Your task to perform on an android device: delete browsing data in the chrome app Image 0: 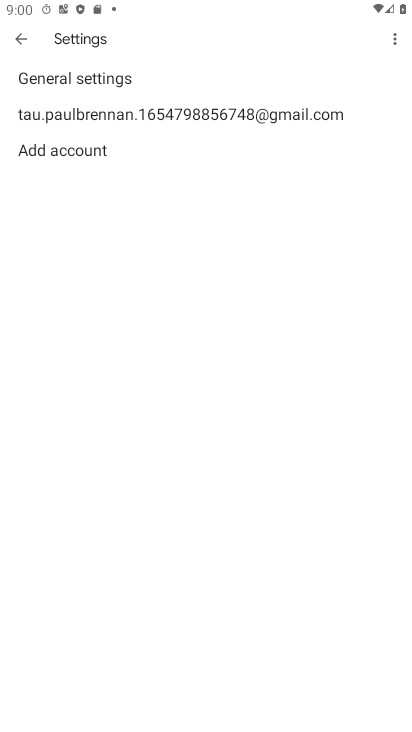
Step 0: click (18, 35)
Your task to perform on an android device: delete browsing data in the chrome app Image 1: 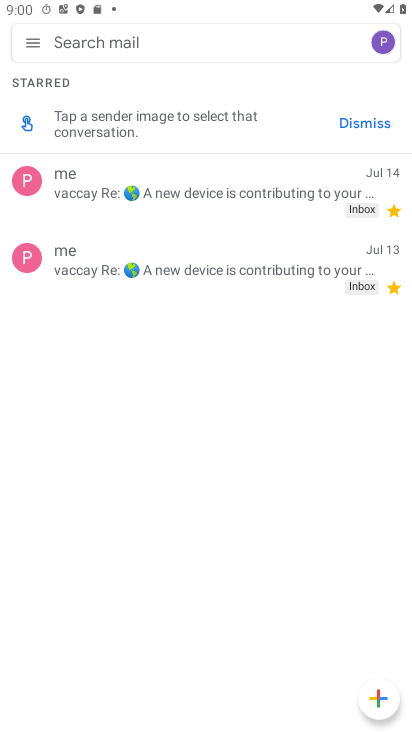
Step 1: click (29, 40)
Your task to perform on an android device: delete browsing data in the chrome app Image 2: 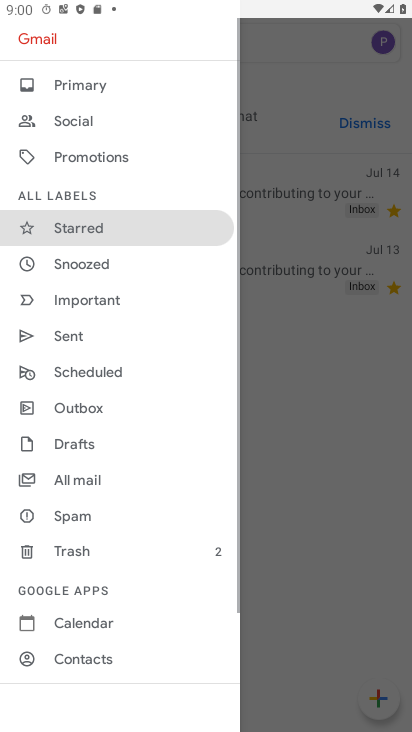
Step 2: press back button
Your task to perform on an android device: delete browsing data in the chrome app Image 3: 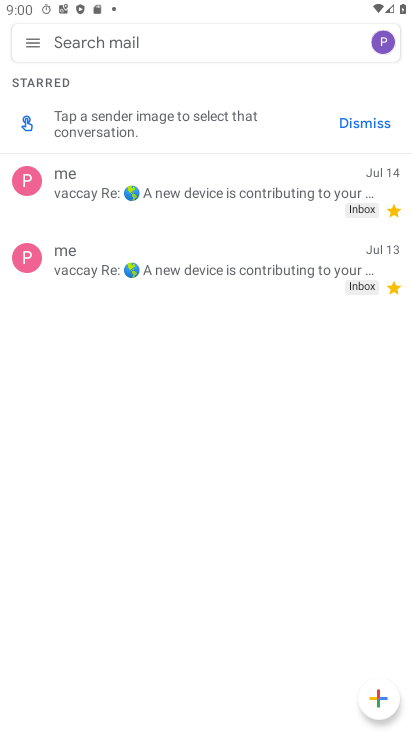
Step 3: press back button
Your task to perform on an android device: delete browsing data in the chrome app Image 4: 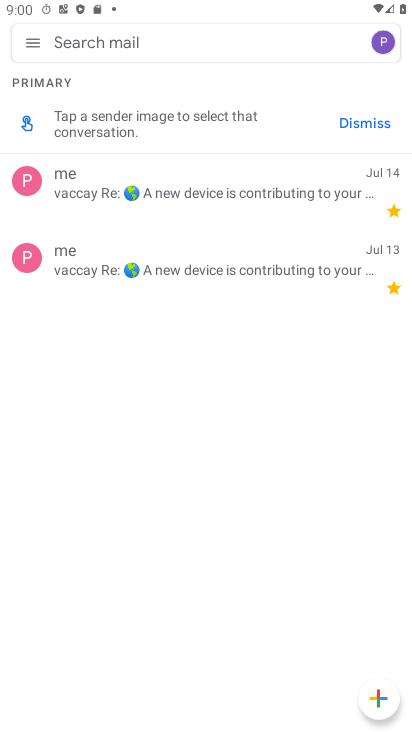
Step 4: press home button
Your task to perform on an android device: delete browsing data in the chrome app Image 5: 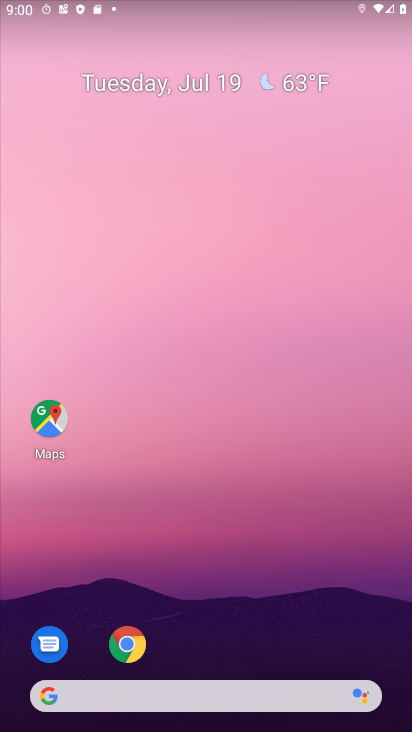
Step 5: drag from (260, 659) to (181, 362)
Your task to perform on an android device: delete browsing data in the chrome app Image 6: 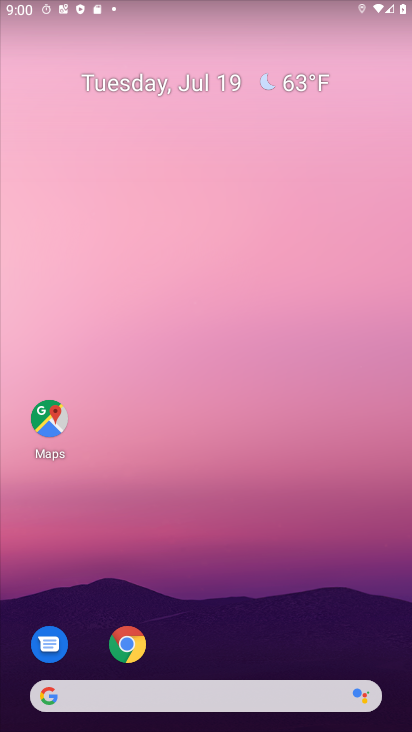
Step 6: drag from (245, 661) to (210, 319)
Your task to perform on an android device: delete browsing data in the chrome app Image 7: 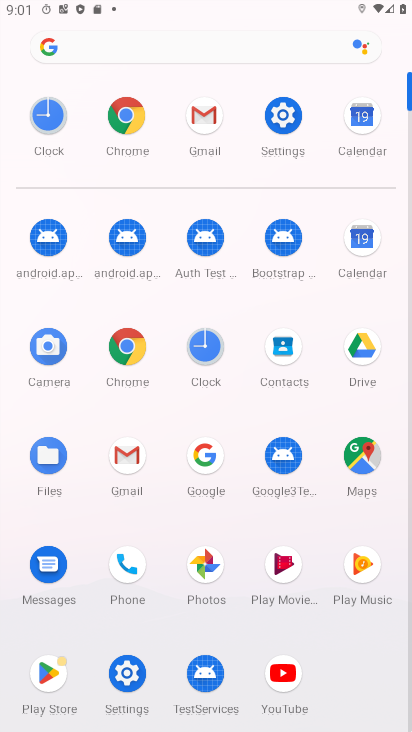
Step 7: click (133, 121)
Your task to perform on an android device: delete browsing data in the chrome app Image 8: 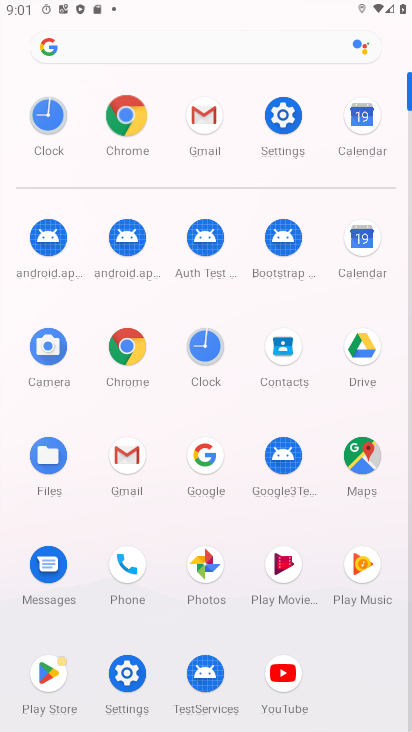
Step 8: click (135, 115)
Your task to perform on an android device: delete browsing data in the chrome app Image 9: 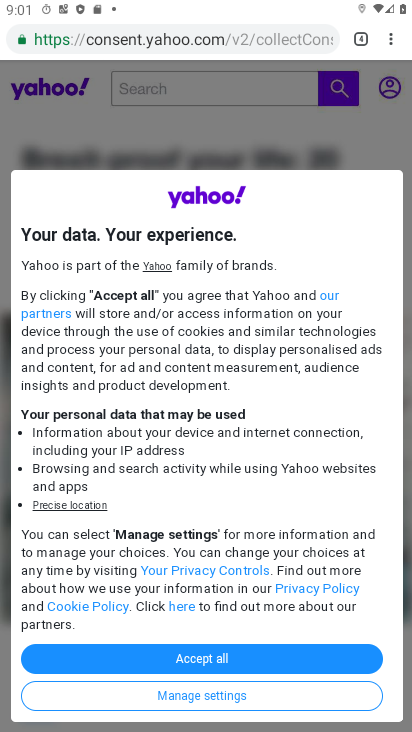
Step 9: click (387, 31)
Your task to perform on an android device: delete browsing data in the chrome app Image 10: 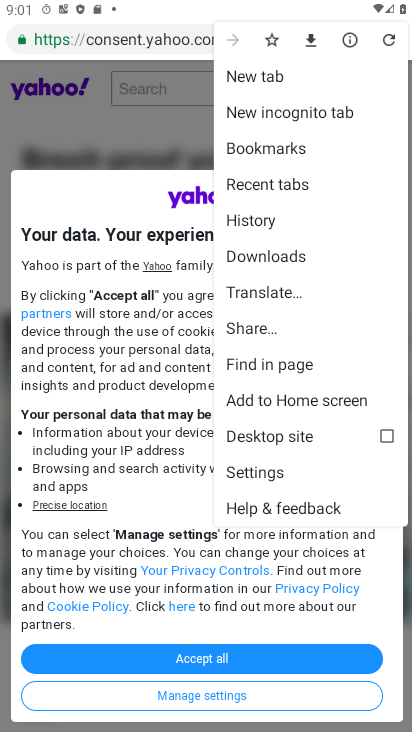
Step 10: click (267, 212)
Your task to perform on an android device: delete browsing data in the chrome app Image 11: 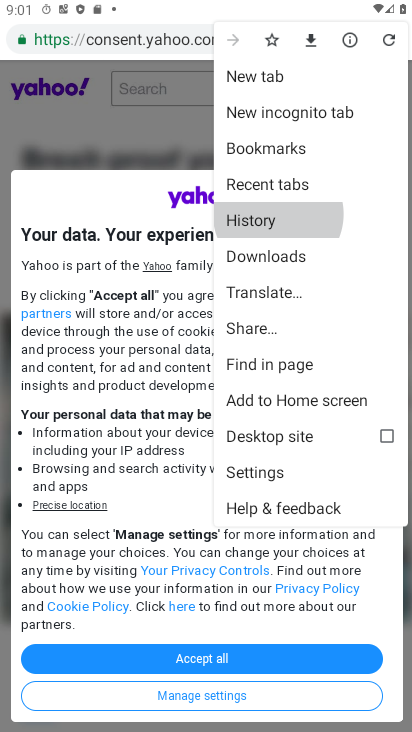
Step 11: click (264, 217)
Your task to perform on an android device: delete browsing data in the chrome app Image 12: 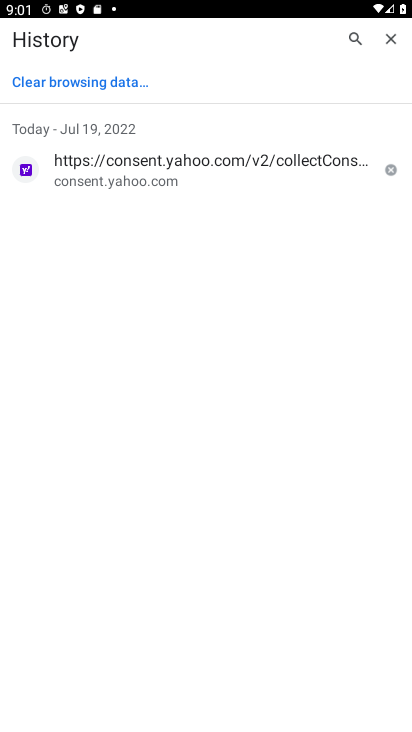
Step 12: click (392, 175)
Your task to perform on an android device: delete browsing data in the chrome app Image 13: 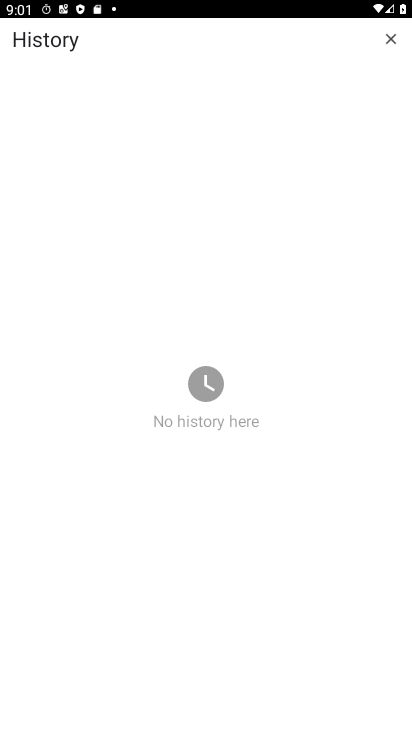
Step 13: task complete